Your task to perform on an android device: turn notification dots on Image 0: 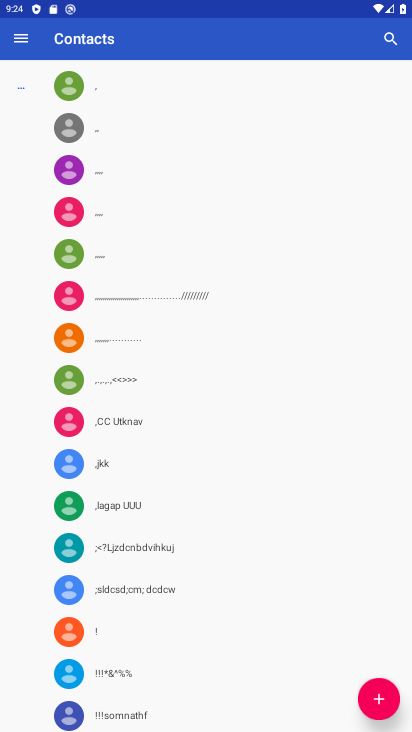
Step 0: press home button
Your task to perform on an android device: turn notification dots on Image 1: 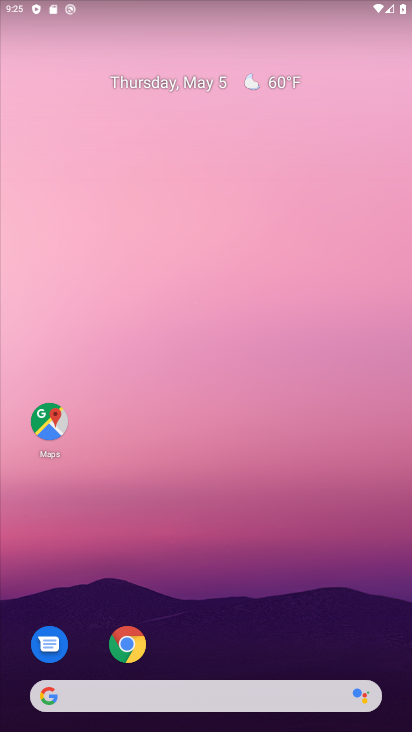
Step 1: drag from (318, 630) to (360, 120)
Your task to perform on an android device: turn notification dots on Image 2: 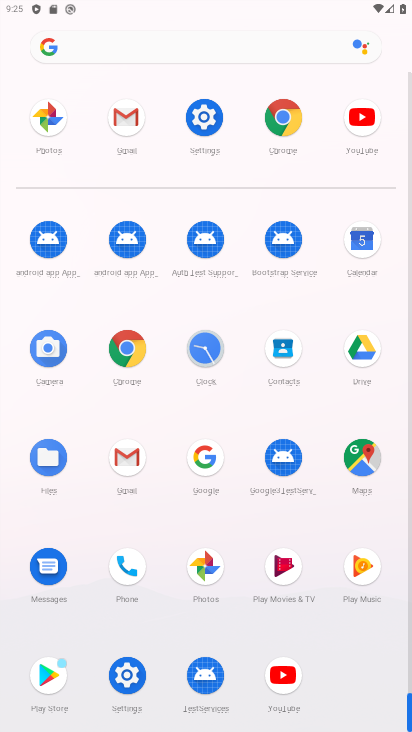
Step 2: click (112, 671)
Your task to perform on an android device: turn notification dots on Image 3: 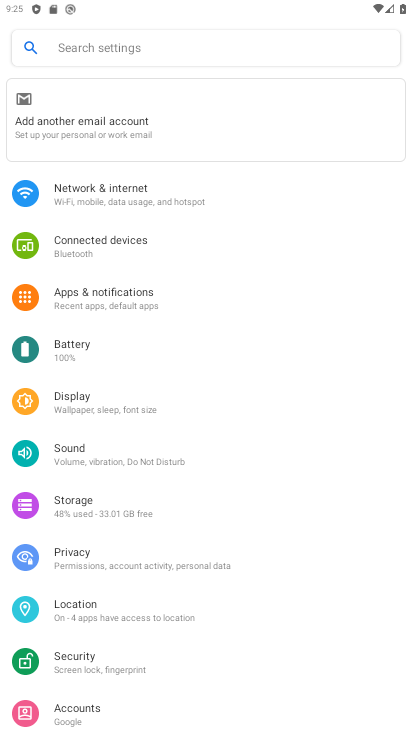
Step 3: click (114, 289)
Your task to perform on an android device: turn notification dots on Image 4: 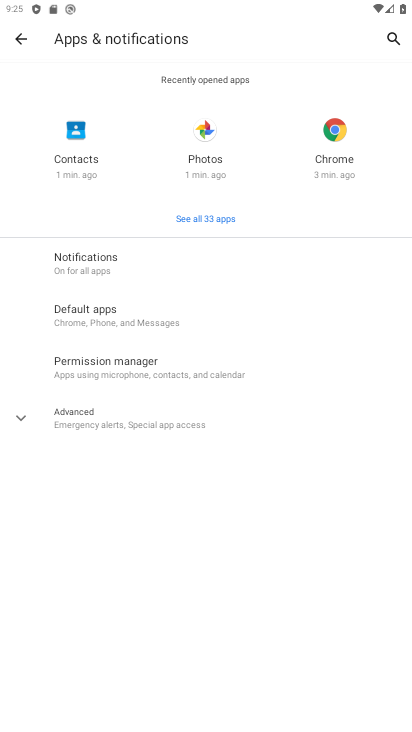
Step 4: click (106, 261)
Your task to perform on an android device: turn notification dots on Image 5: 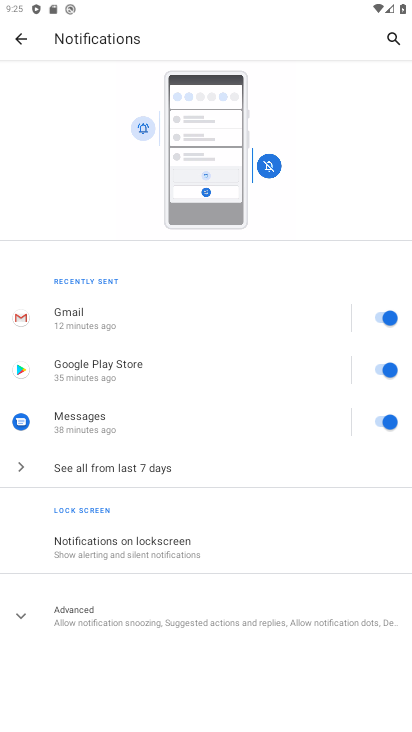
Step 5: click (23, 618)
Your task to perform on an android device: turn notification dots on Image 6: 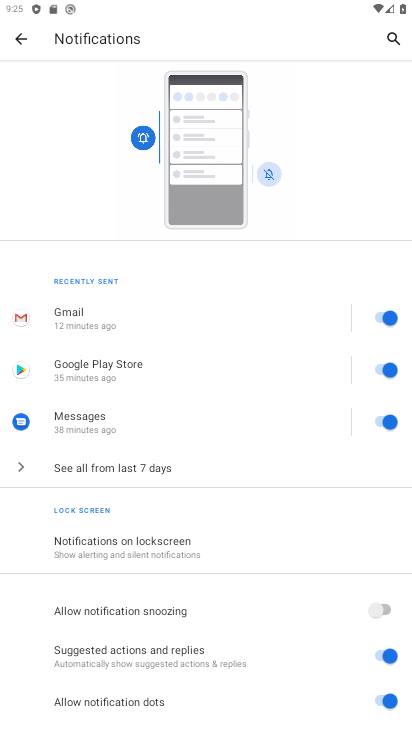
Step 6: task complete